Your task to perform on an android device: change keyboard looks Image 0: 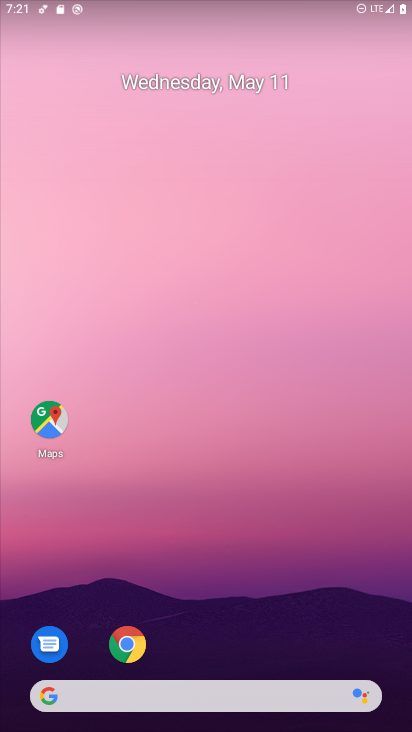
Step 0: drag from (250, 587) to (155, 179)
Your task to perform on an android device: change keyboard looks Image 1: 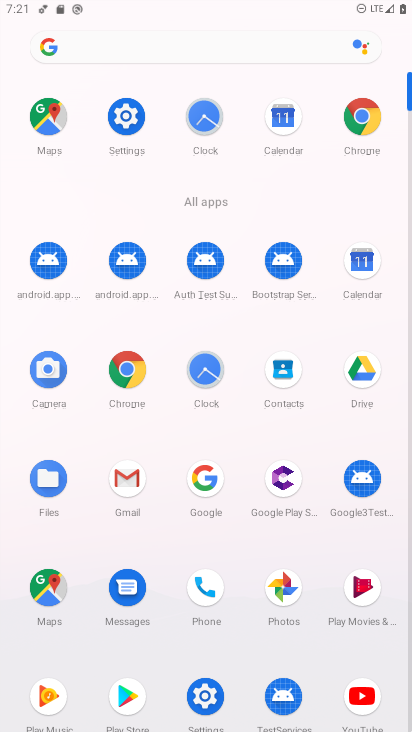
Step 1: click (126, 118)
Your task to perform on an android device: change keyboard looks Image 2: 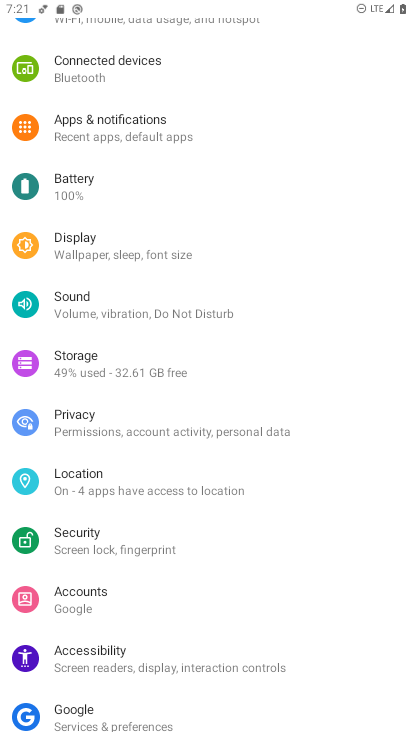
Step 2: drag from (158, 604) to (137, 192)
Your task to perform on an android device: change keyboard looks Image 3: 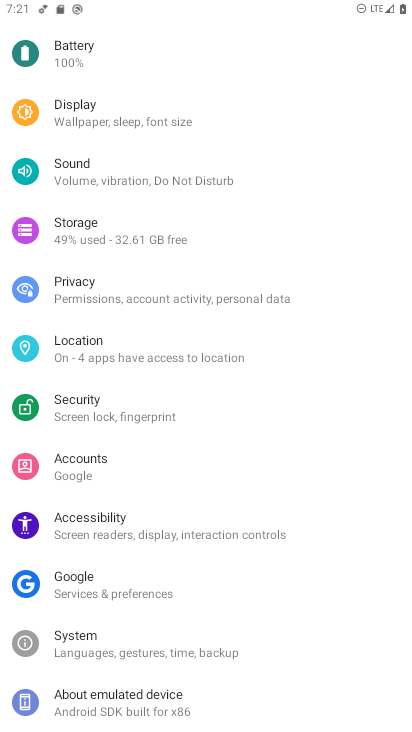
Step 3: click (78, 634)
Your task to perform on an android device: change keyboard looks Image 4: 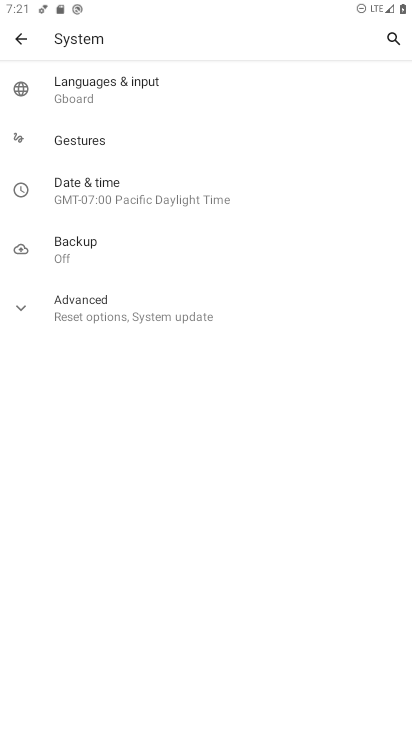
Step 4: click (96, 86)
Your task to perform on an android device: change keyboard looks Image 5: 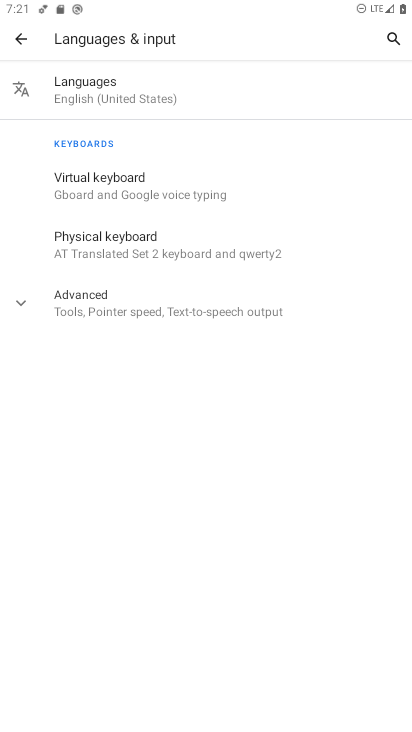
Step 5: click (83, 174)
Your task to perform on an android device: change keyboard looks Image 6: 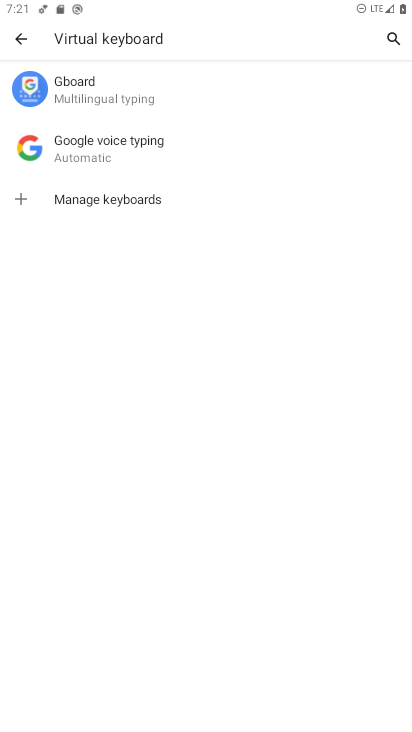
Step 6: click (65, 87)
Your task to perform on an android device: change keyboard looks Image 7: 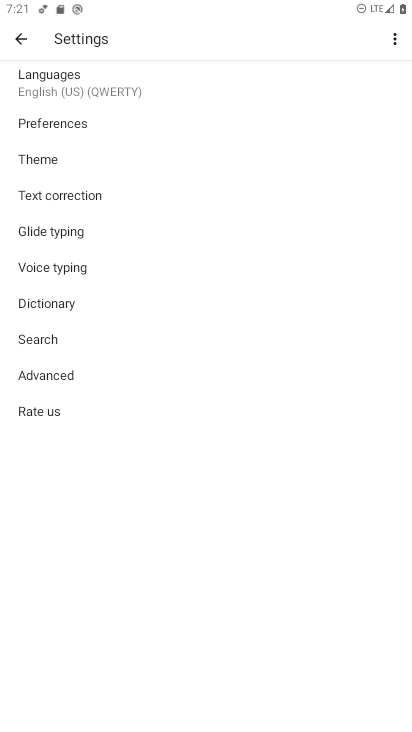
Step 7: click (29, 152)
Your task to perform on an android device: change keyboard looks Image 8: 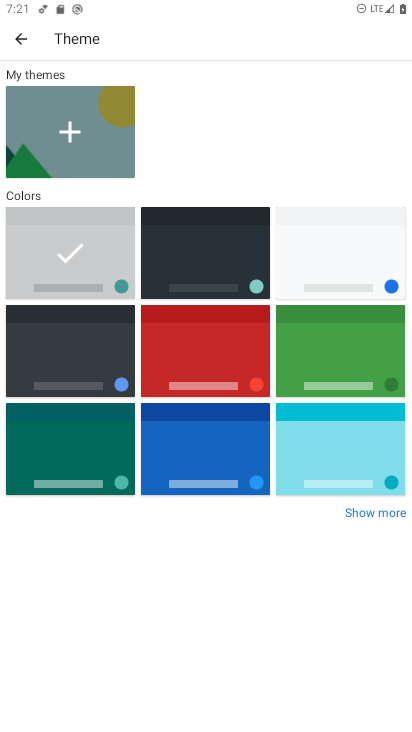
Step 8: click (336, 366)
Your task to perform on an android device: change keyboard looks Image 9: 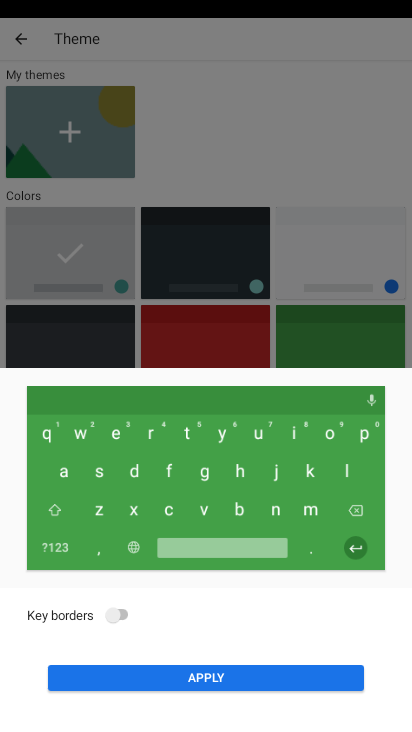
Step 9: click (221, 682)
Your task to perform on an android device: change keyboard looks Image 10: 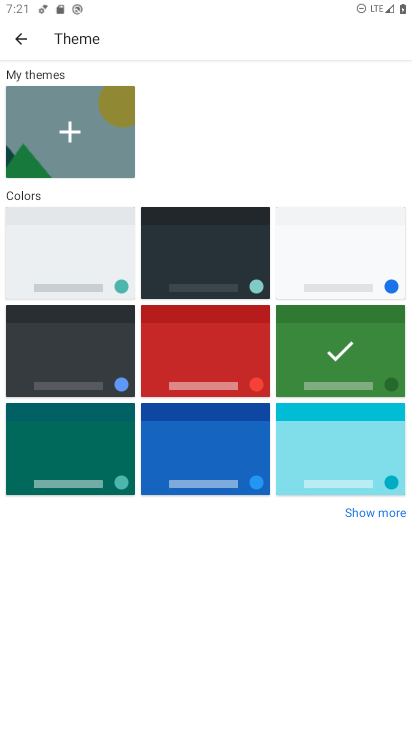
Step 10: task complete